Your task to perform on an android device: open a new tab in the chrome app Image 0: 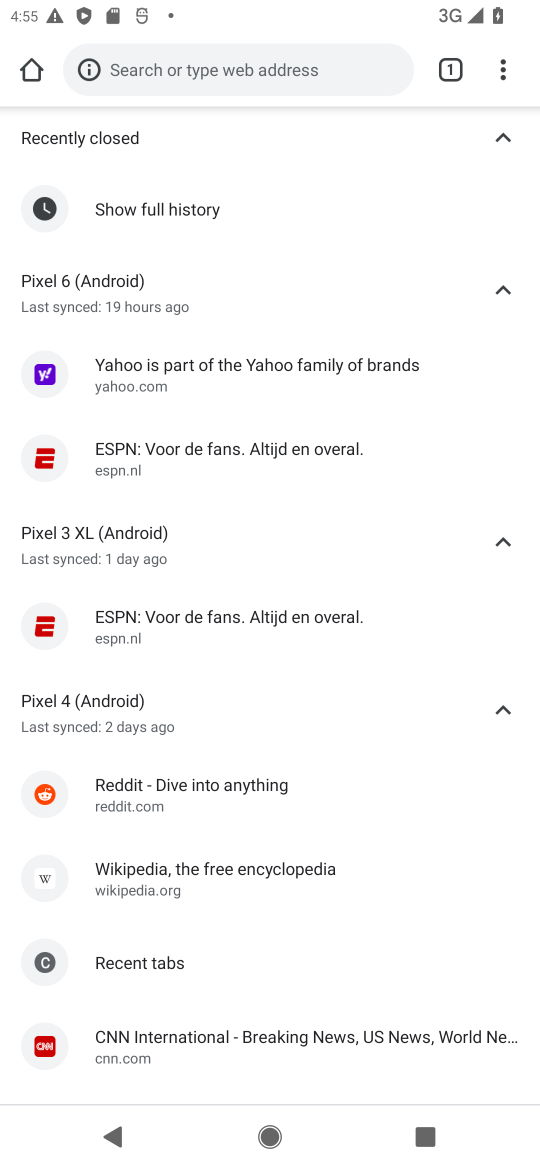
Step 0: press home button
Your task to perform on an android device: open a new tab in the chrome app Image 1: 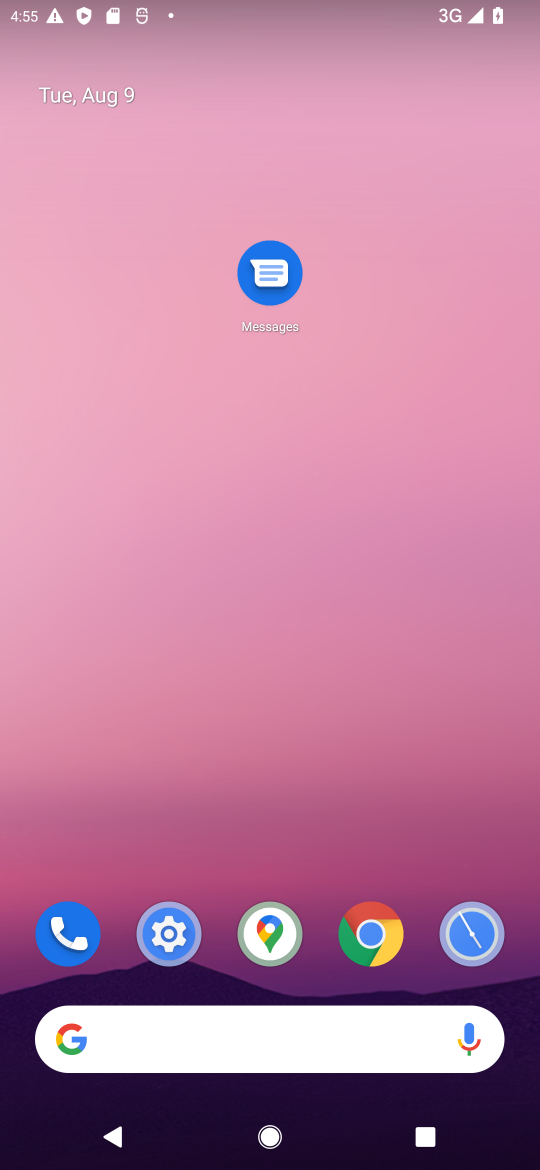
Step 1: click (349, 959)
Your task to perform on an android device: open a new tab in the chrome app Image 2: 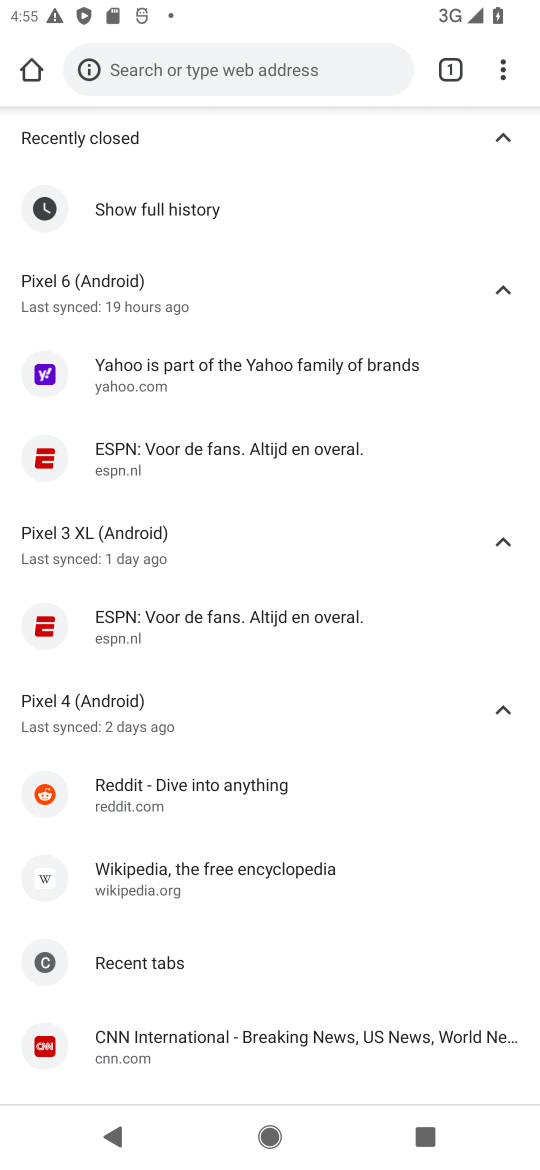
Step 2: click (446, 70)
Your task to perform on an android device: open a new tab in the chrome app Image 3: 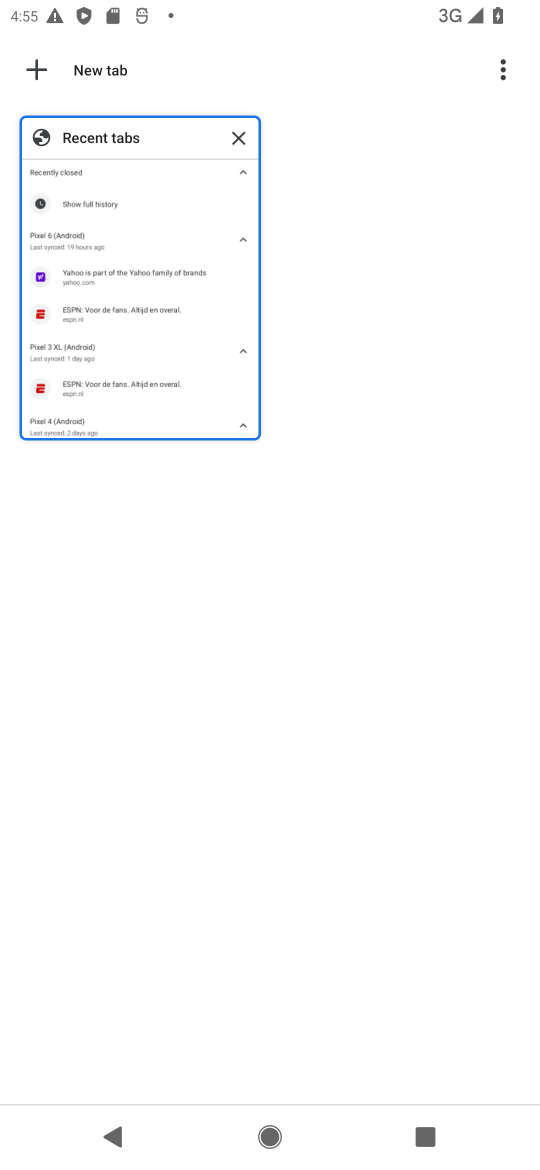
Step 3: click (53, 79)
Your task to perform on an android device: open a new tab in the chrome app Image 4: 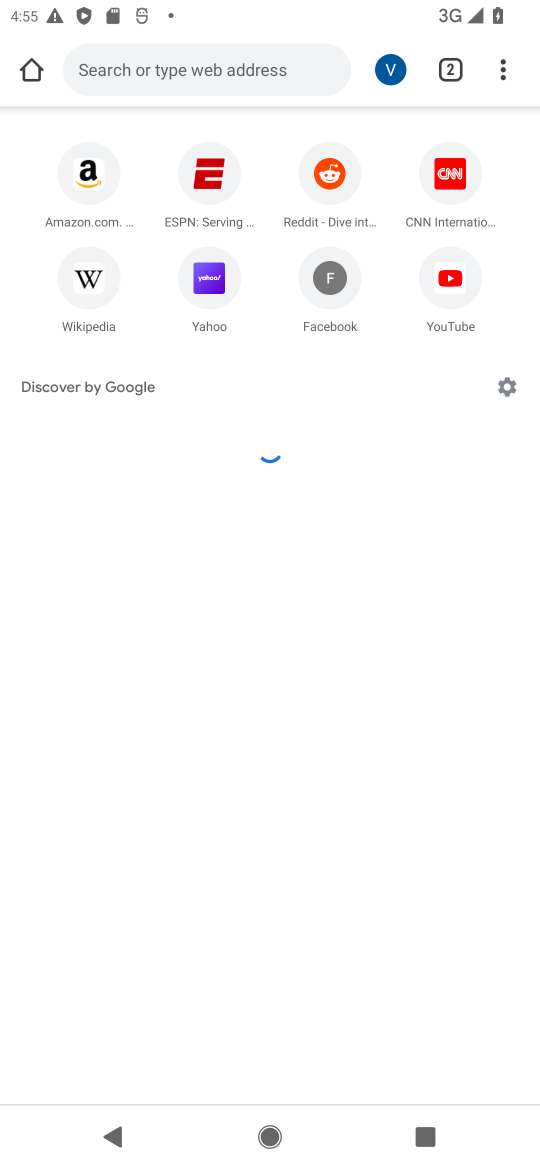
Step 4: task complete